Your task to perform on an android device: Go to Wikipedia Image 0: 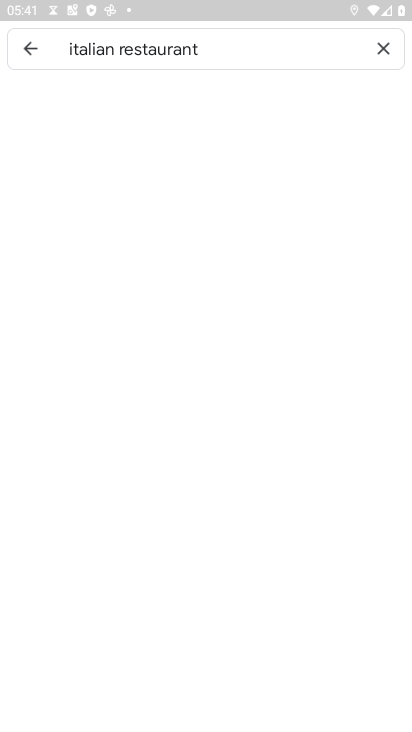
Step 0: press home button
Your task to perform on an android device: Go to Wikipedia Image 1: 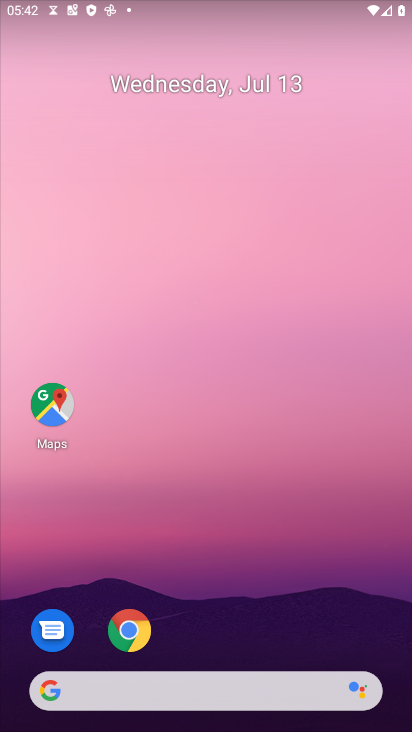
Step 1: drag from (240, 673) to (307, 311)
Your task to perform on an android device: Go to Wikipedia Image 2: 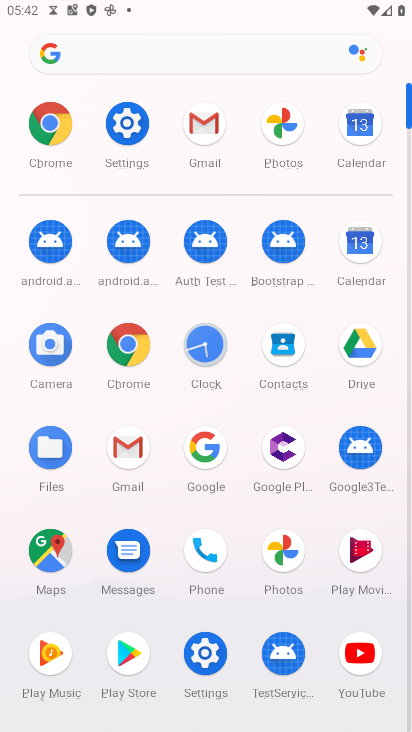
Step 2: click (134, 349)
Your task to perform on an android device: Go to Wikipedia Image 3: 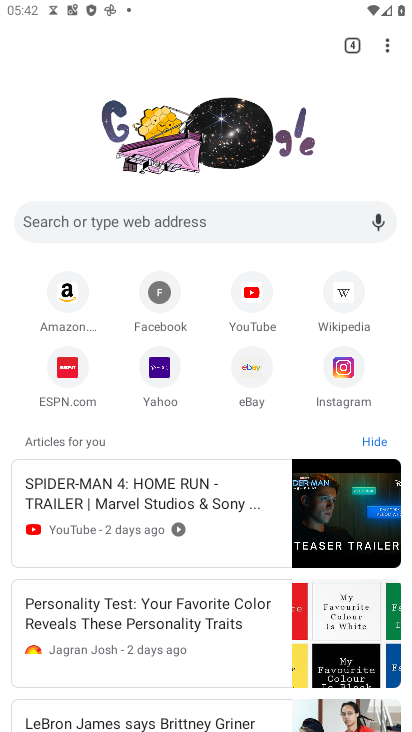
Step 3: click (333, 301)
Your task to perform on an android device: Go to Wikipedia Image 4: 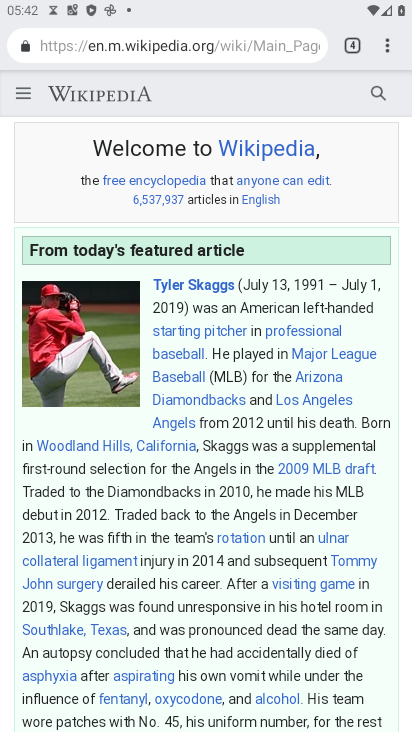
Step 4: task complete